Your task to perform on an android device: Open the Play Movies app and select the watchlist tab. Image 0: 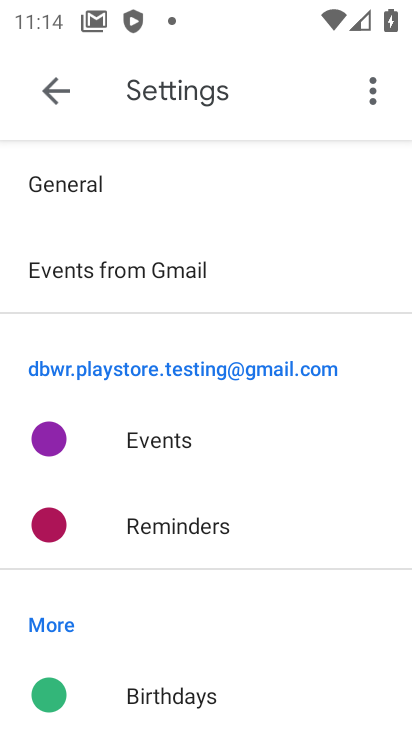
Step 0: press home button
Your task to perform on an android device: Open the Play Movies app and select the watchlist tab. Image 1: 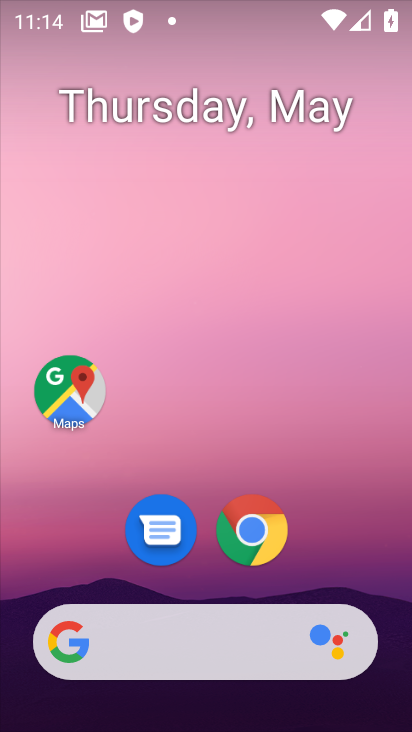
Step 1: drag from (394, 638) to (350, 264)
Your task to perform on an android device: Open the Play Movies app and select the watchlist tab. Image 2: 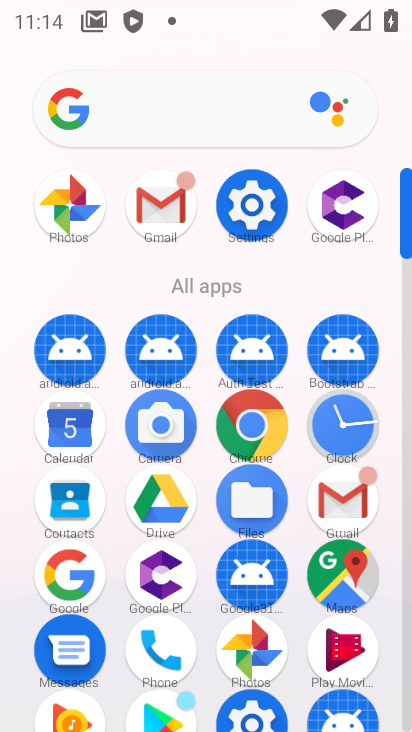
Step 2: click (334, 651)
Your task to perform on an android device: Open the Play Movies app and select the watchlist tab. Image 3: 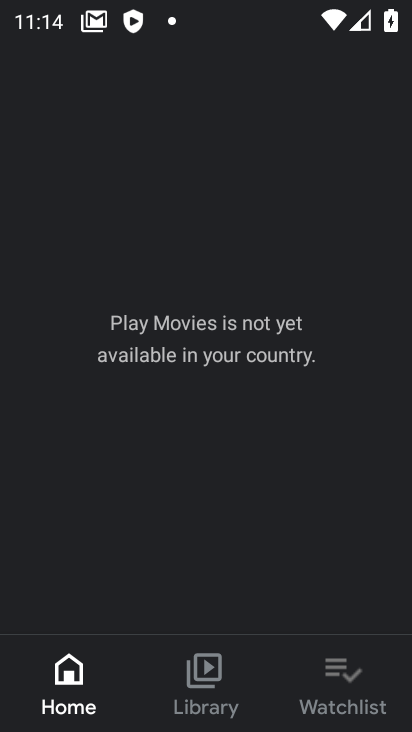
Step 3: click (348, 679)
Your task to perform on an android device: Open the Play Movies app and select the watchlist tab. Image 4: 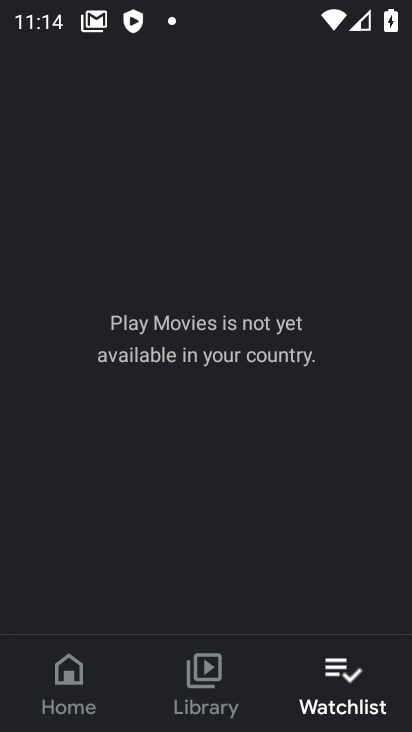
Step 4: task complete